Your task to perform on an android device: turn vacation reply on in the gmail app Image 0: 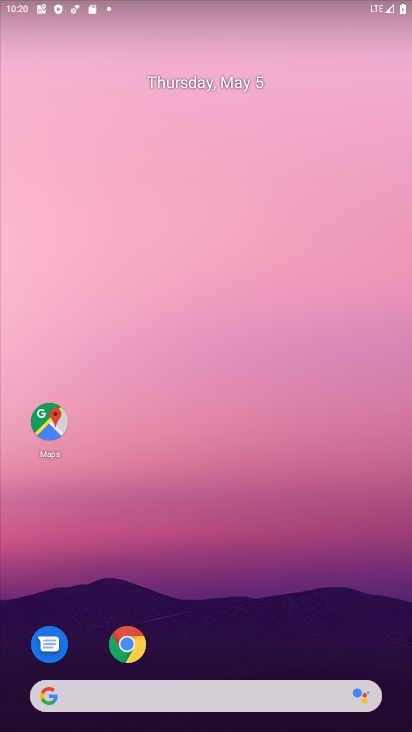
Step 0: drag from (204, 671) to (147, 35)
Your task to perform on an android device: turn vacation reply on in the gmail app Image 1: 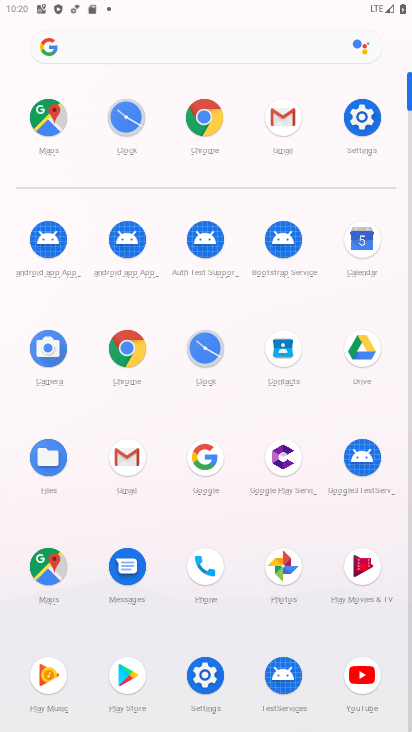
Step 1: click (128, 463)
Your task to perform on an android device: turn vacation reply on in the gmail app Image 2: 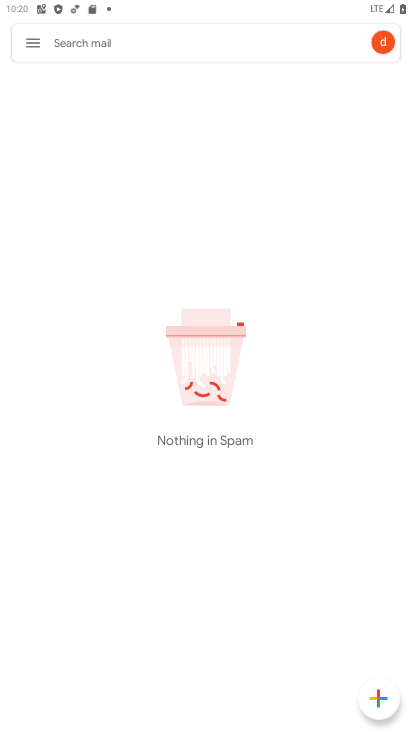
Step 2: click (33, 46)
Your task to perform on an android device: turn vacation reply on in the gmail app Image 3: 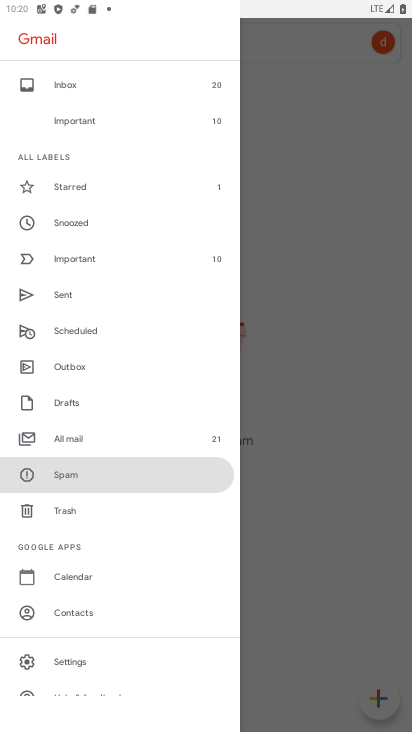
Step 3: click (82, 657)
Your task to perform on an android device: turn vacation reply on in the gmail app Image 4: 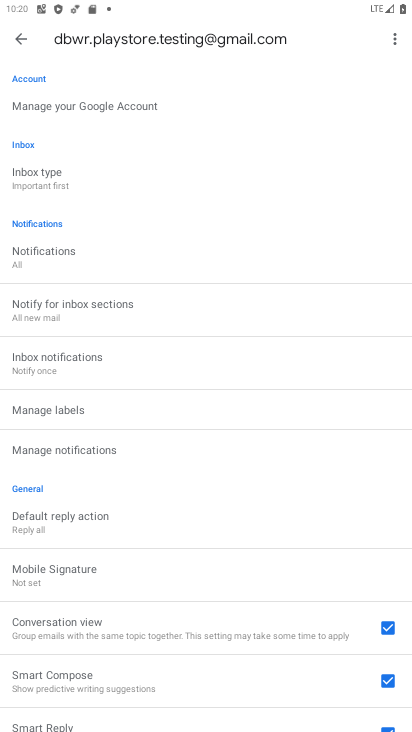
Step 4: drag from (80, 647) to (69, 262)
Your task to perform on an android device: turn vacation reply on in the gmail app Image 5: 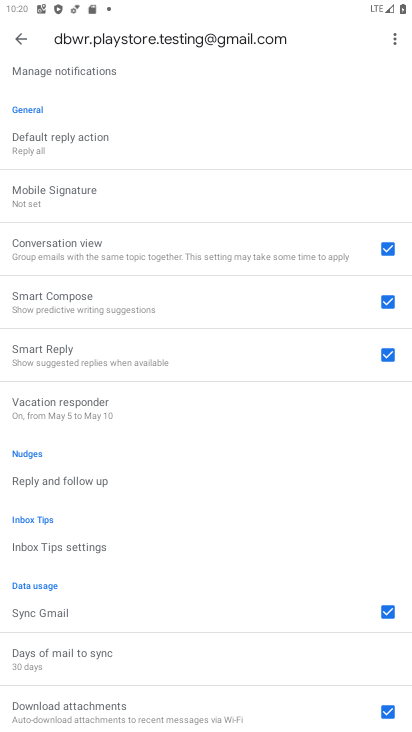
Step 5: click (68, 397)
Your task to perform on an android device: turn vacation reply on in the gmail app Image 6: 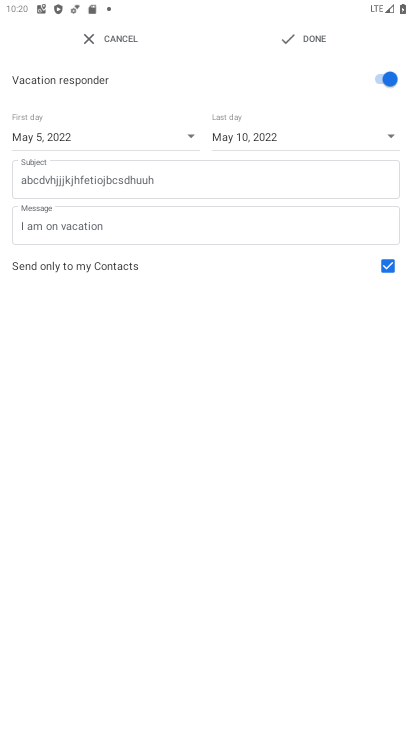
Step 6: click (297, 27)
Your task to perform on an android device: turn vacation reply on in the gmail app Image 7: 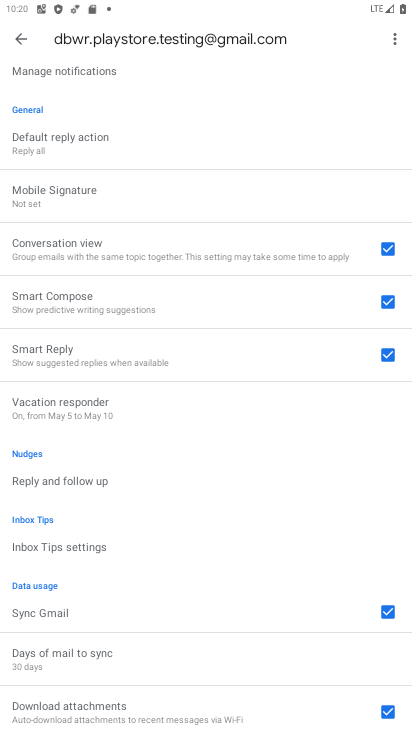
Step 7: task complete